Your task to perform on an android device: Go to Google maps Image 0: 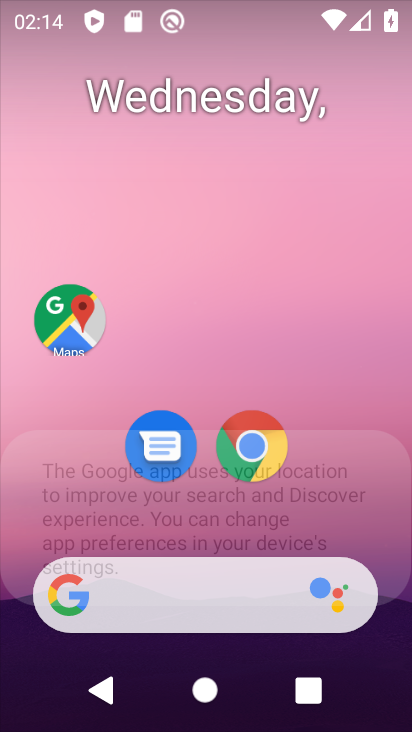
Step 0: click (65, 328)
Your task to perform on an android device: Go to Google maps Image 1: 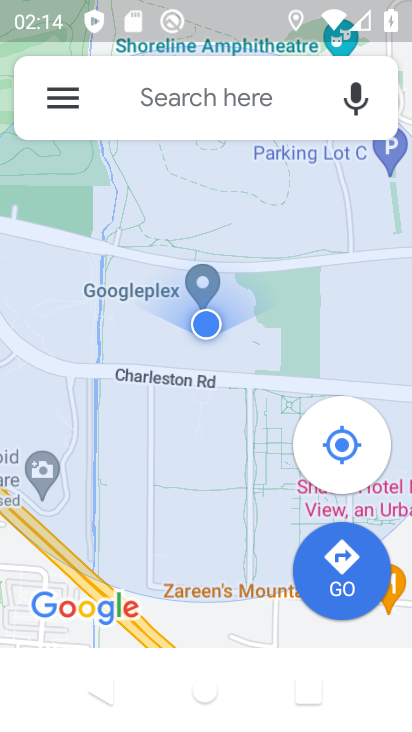
Step 1: task complete